Your task to perform on an android device: Search for flights from Seoul to Barcelona Image 0: 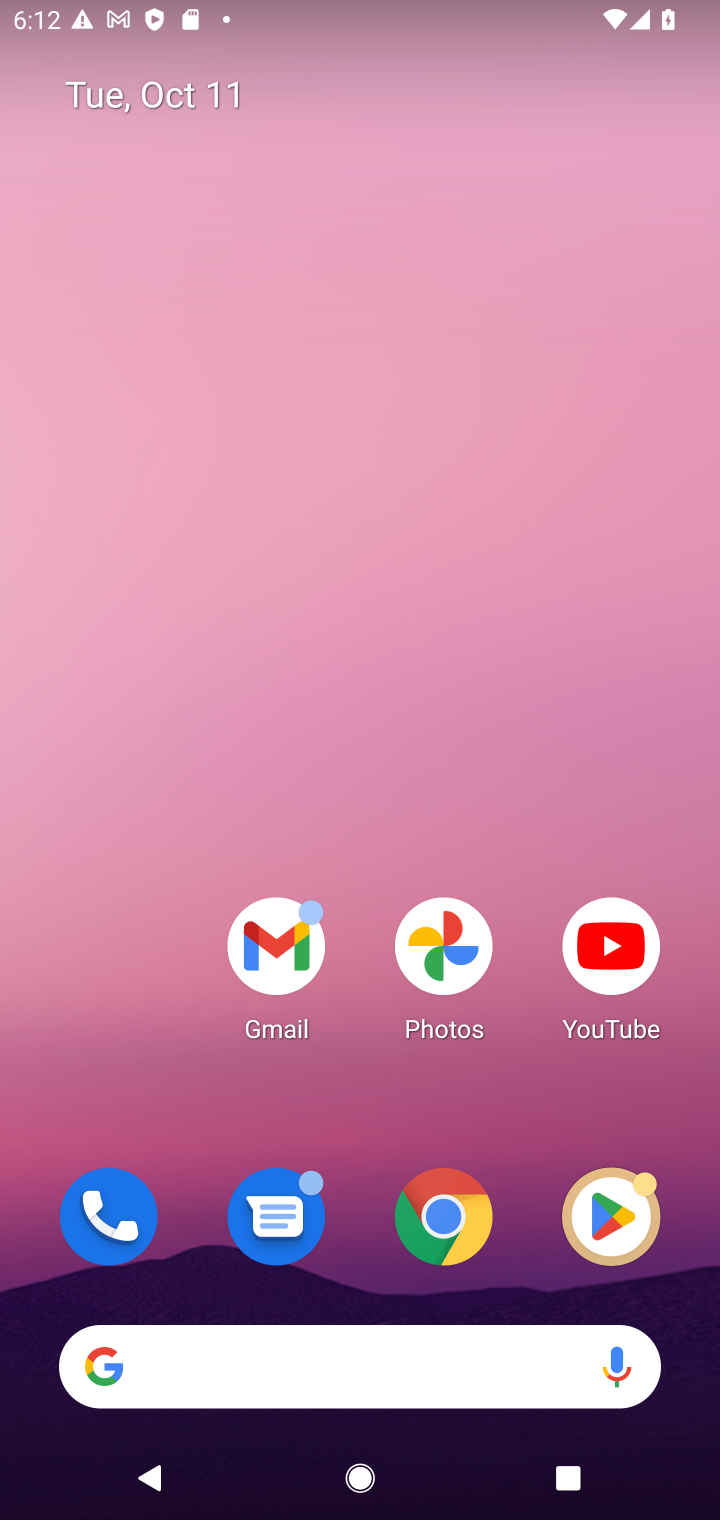
Step 0: click (441, 1216)
Your task to perform on an android device: Search for flights from Seoul to Barcelona Image 1: 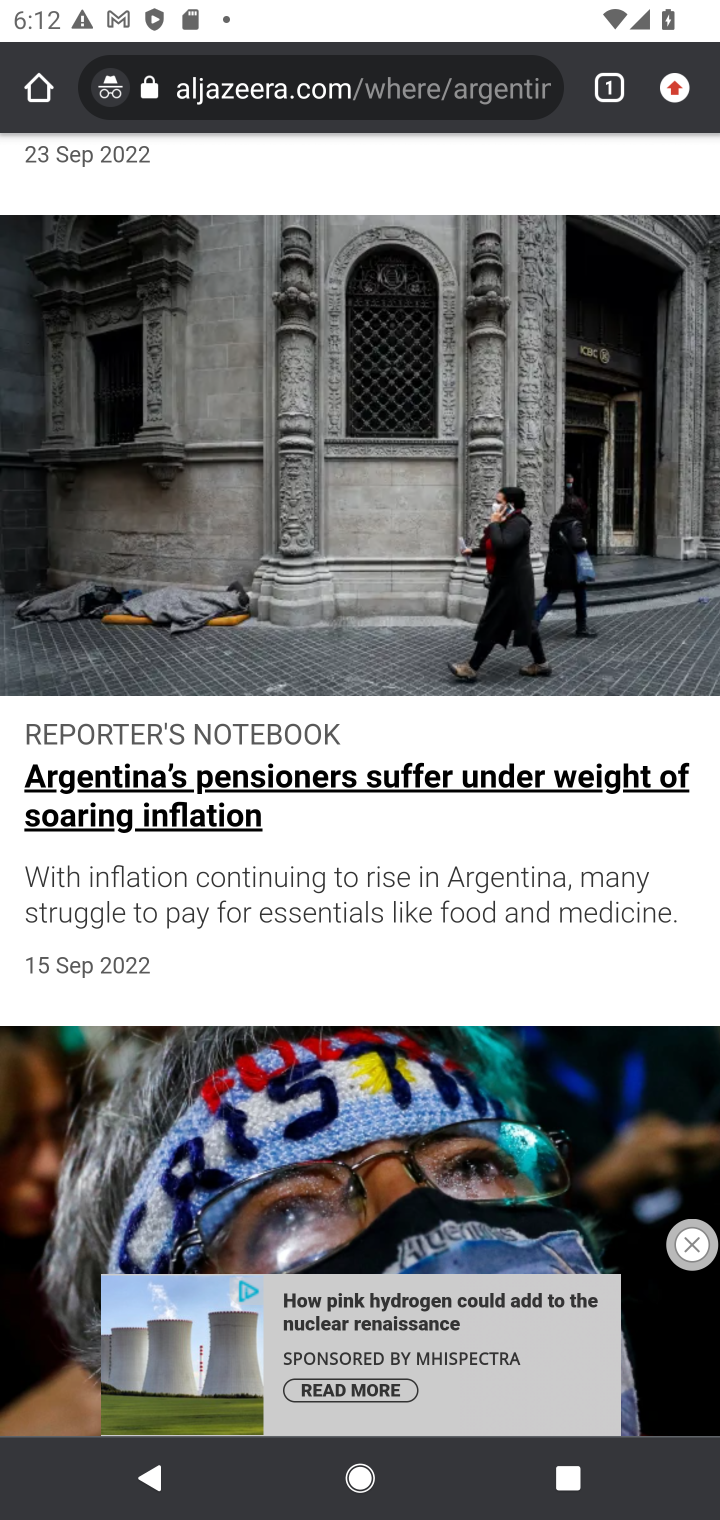
Step 1: click (432, 85)
Your task to perform on an android device: Search for flights from Seoul to Barcelona Image 2: 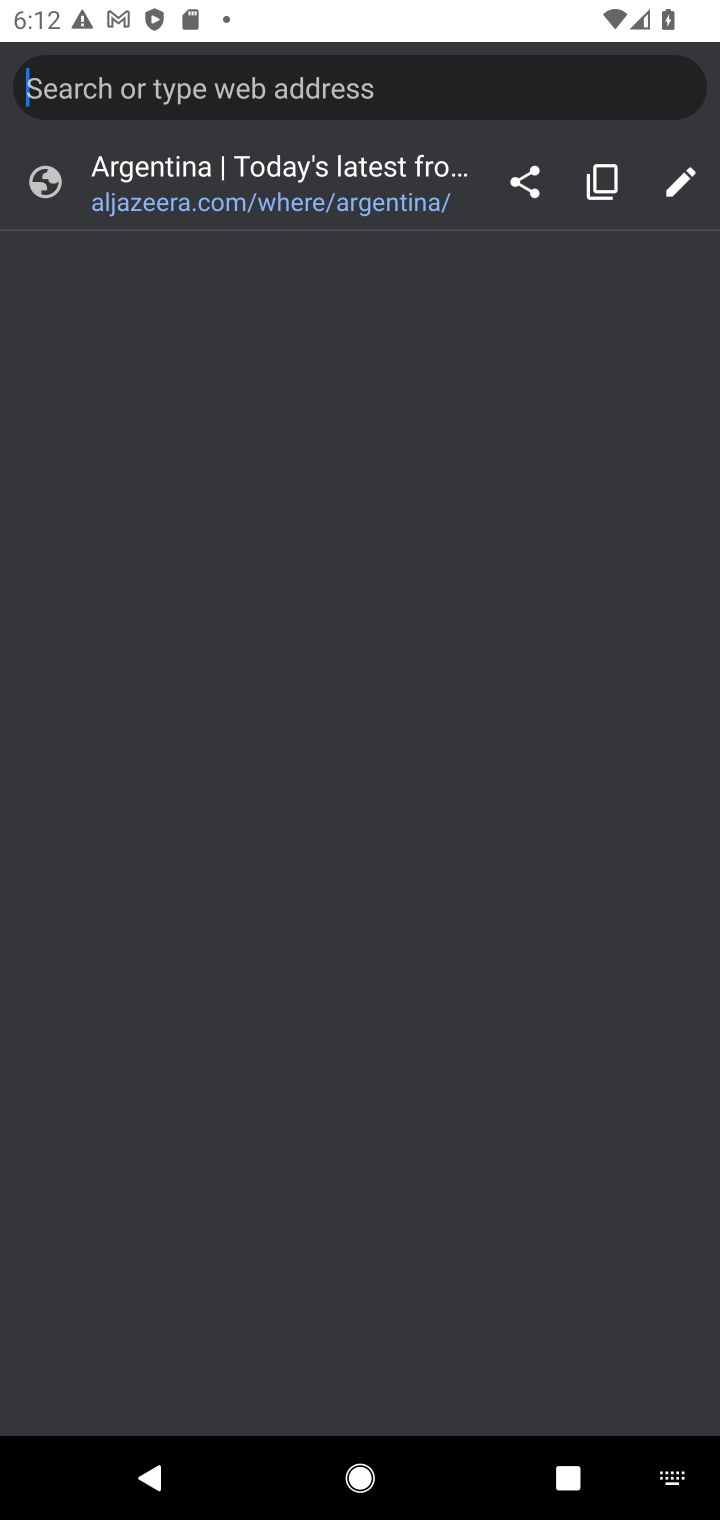
Step 2: type "flights from Seoul to Barcelona"
Your task to perform on an android device: Search for flights from Seoul to Barcelona Image 3: 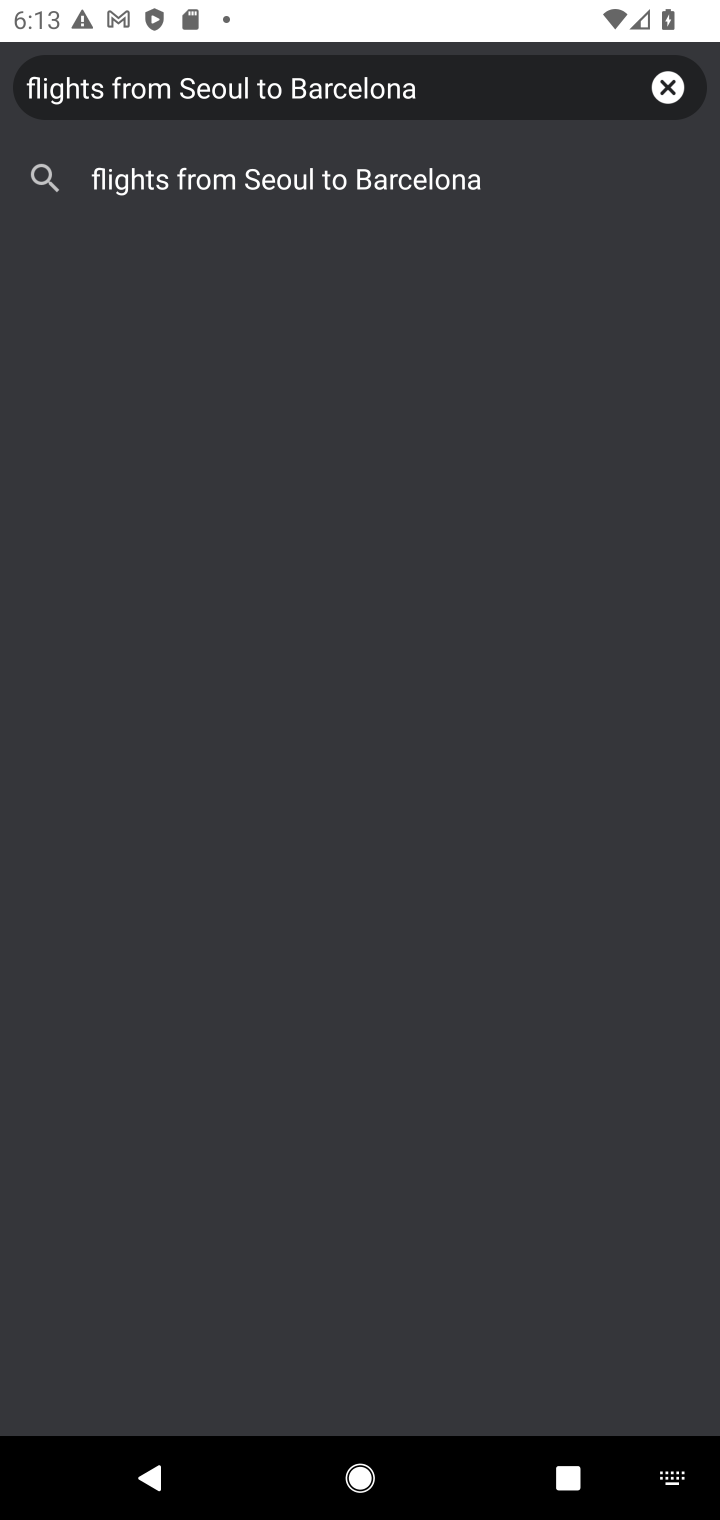
Step 3: click (406, 183)
Your task to perform on an android device: Search for flights from Seoul to Barcelona Image 4: 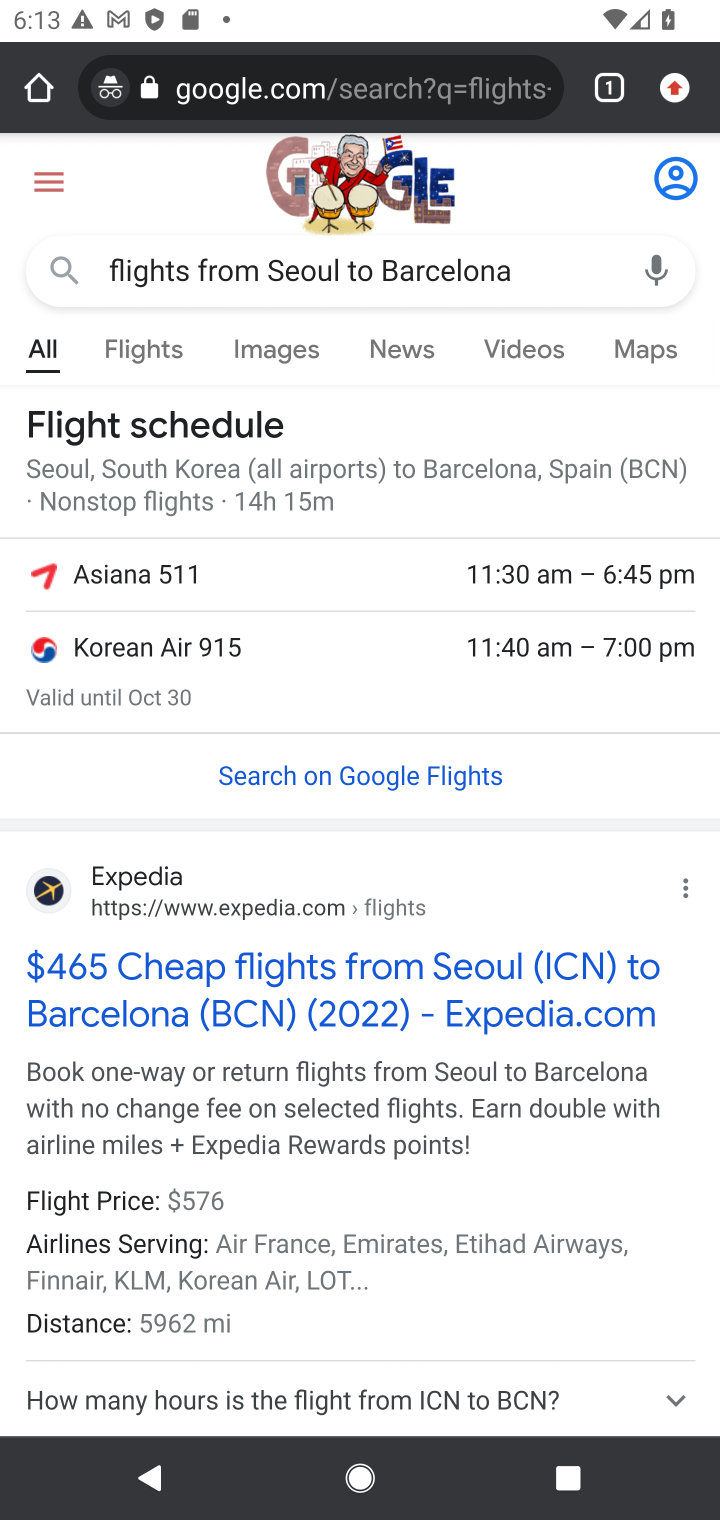
Step 4: task complete